Your task to perform on an android device: Set the phone to "Do not disturb". Image 0: 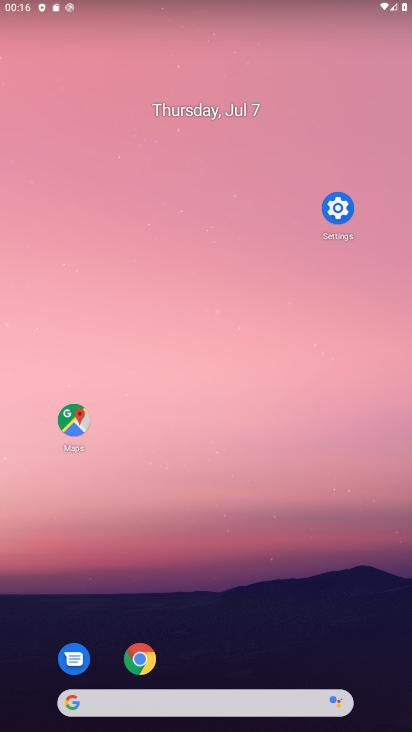
Step 0: drag from (227, 292) to (201, 187)
Your task to perform on an android device: Set the phone to "Do not disturb". Image 1: 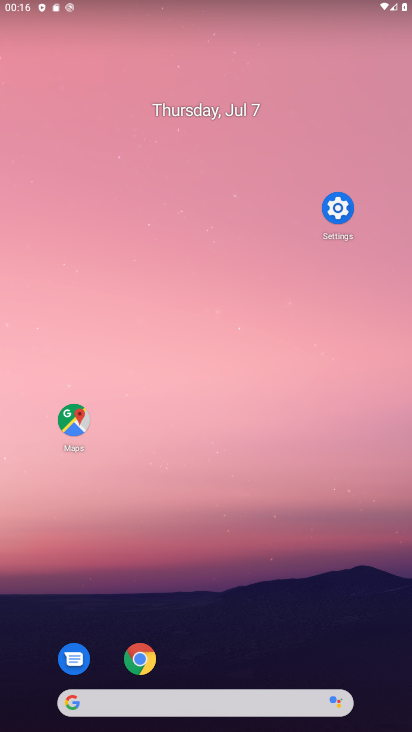
Step 1: drag from (287, 647) to (301, 26)
Your task to perform on an android device: Set the phone to "Do not disturb". Image 2: 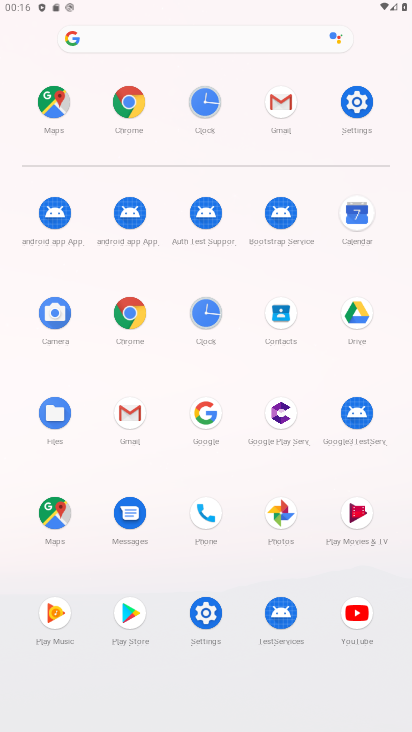
Step 2: drag from (289, 559) to (226, 320)
Your task to perform on an android device: Set the phone to "Do not disturb". Image 3: 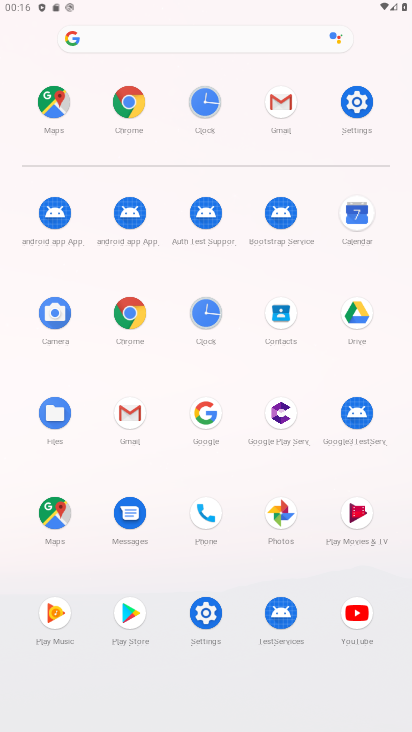
Step 3: click (354, 113)
Your task to perform on an android device: Set the phone to "Do not disturb". Image 4: 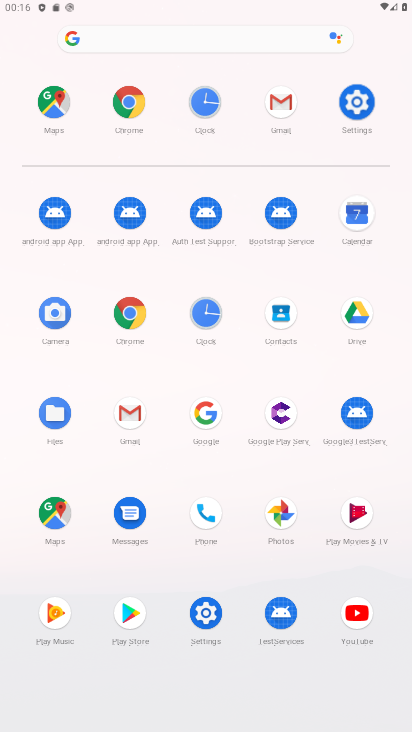
Step 4: click (356, 112)
Your task to perform on an android device: Set the phone to "Do not disturb". Image 5: 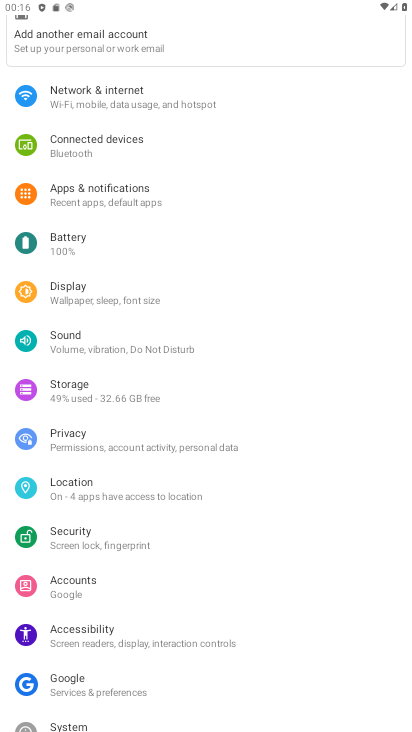
Step 5: drag from (86, 530) to (53, 313)
Your task to perform on an android device: Set the phone to "Do not disturb". Image 6: 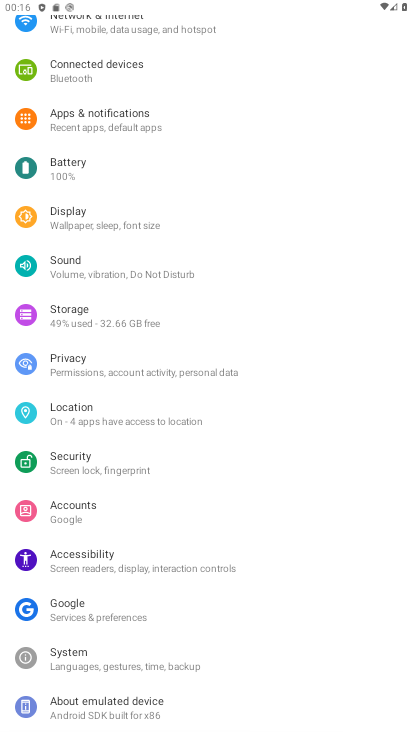
Step 6: drag from (147, 484) to (88, 186)
Your task to perform on an android device: Set the phone to "Do not disturb". Image 7: 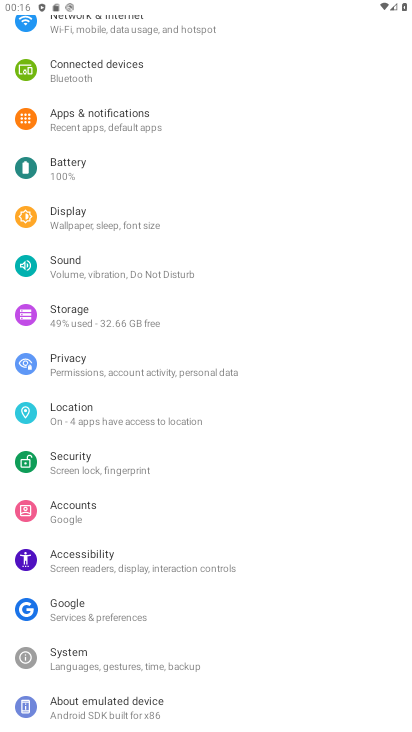
Step 7: click (141, 284)
Your task to perform on an android device: Set the phone to "Do not disturb". Image 8: 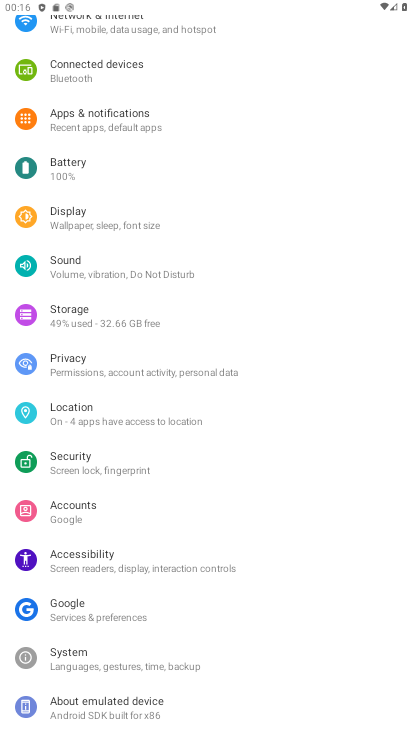
Step 8: click (143, 280)
Your task to perform on an android device: Set the phone to "Do not disturb". Image 9: 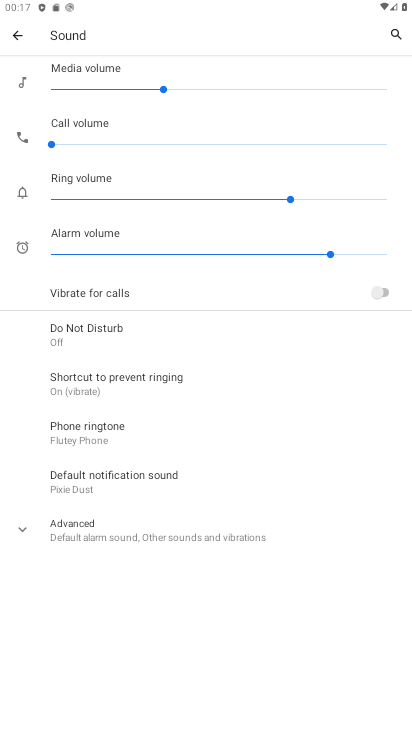
Step 9: task complete